Your task to perform on an android device: Open settings Image 0: 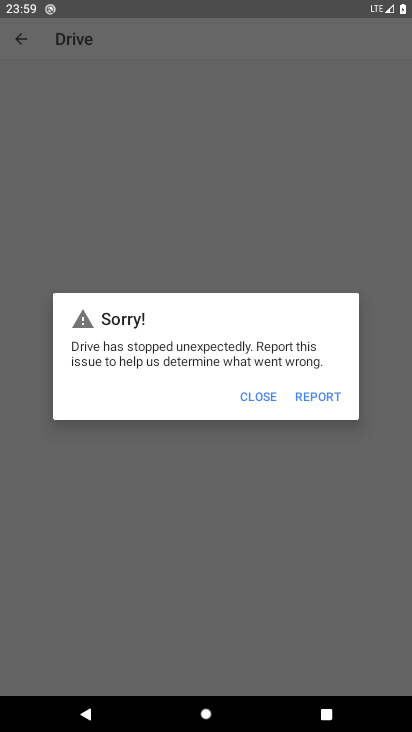
Step 0: press home button
Your task to perform on an android device: Open settings Image 1: 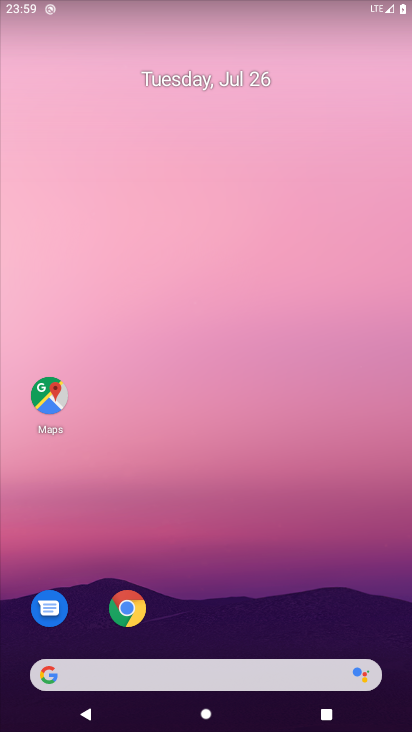
Step 1: drag from (251, 570) to (308, 175)
Your task to perform on an android device: Open settings Image 2: 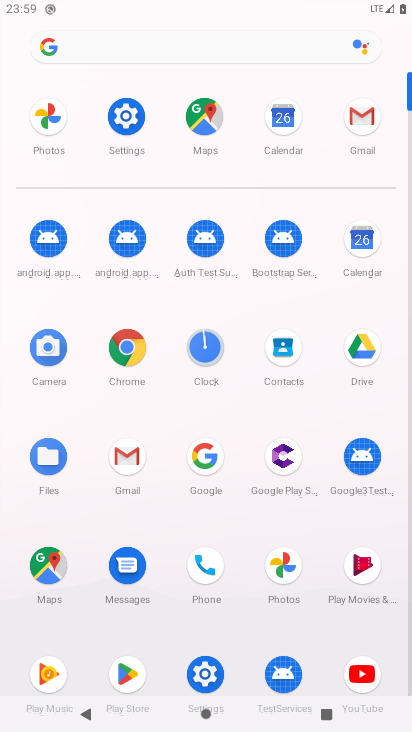
Step 2: click (126, 109)
Your task to perform on an android device: Open settings Image 3: 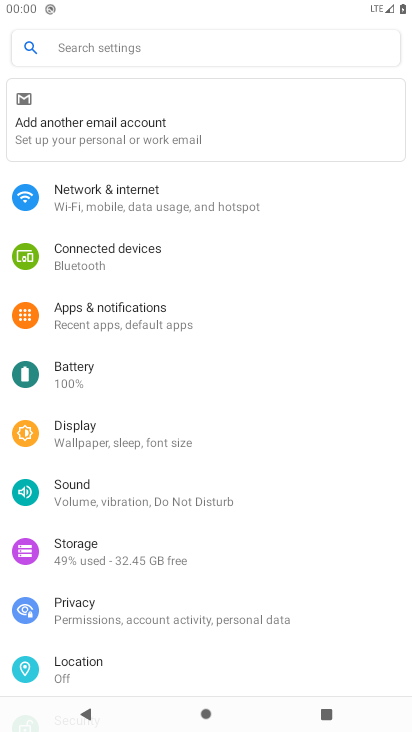
Step 3: task complete